Your task to perform on an android device: Go to display settings Image 0: 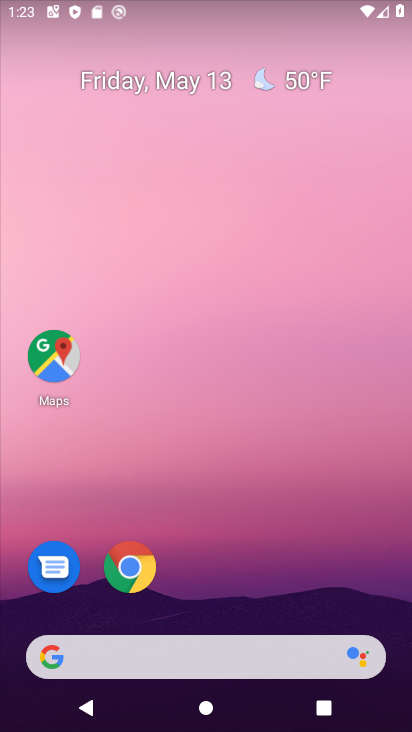
Step 0: drag from (138, 634) to (260, 199)
Your task to perform on an android device: Go to display settings Image 1: 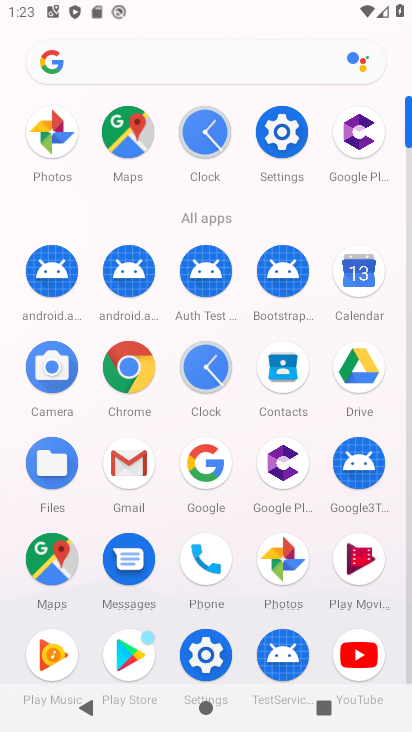
Step 1: click (292, 120)
Your task to perform on an android device: Go to display settings Image 2: 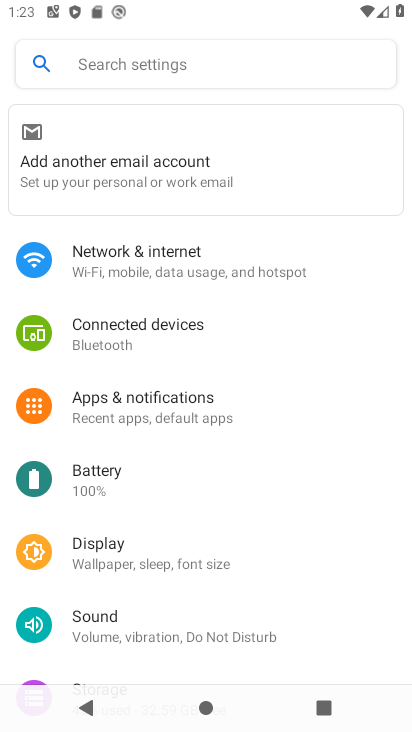
Step 2: click (77, 570)
Your task to perform on an android device: Go to display settings Image 3: 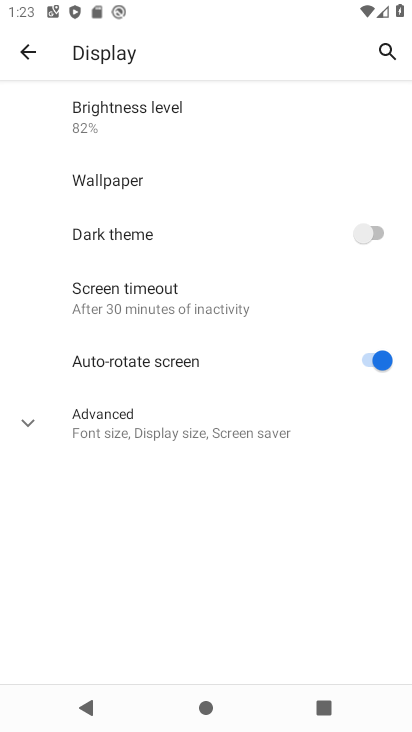
Step 3: click (117, 434)
Your task to perform on an android device: Go to display settings Image 4: 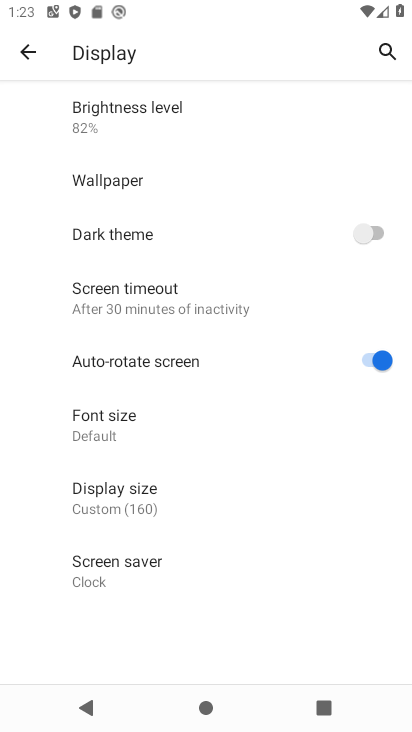
Step 4: task complete